Your task to perform on an android device: snooze an email in the gmail app Image 0: 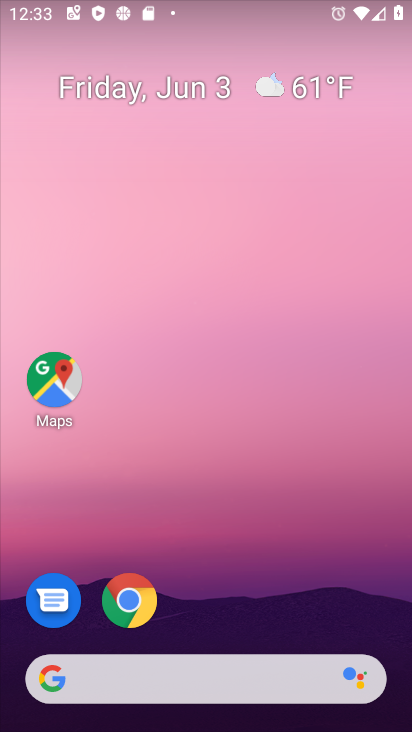
Step 0: drag from (281, 579) to (286, 207)
Your task to perform on an android device: snooze an email in the gmail app Image 1: 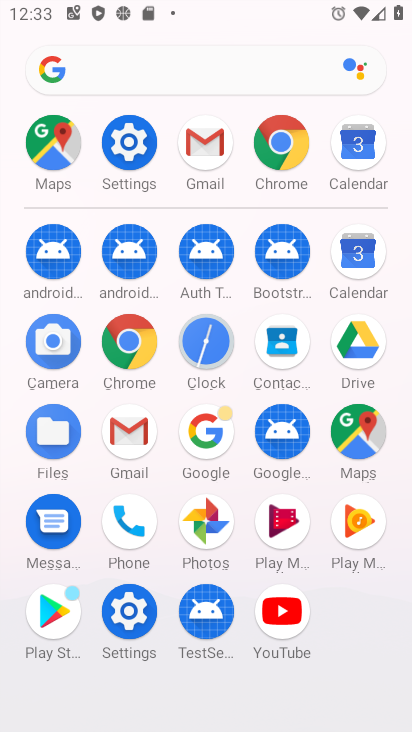
Step 1: click (213, 155)
Your task to perform on an android device: snooze an email in the gmail app Image 2: 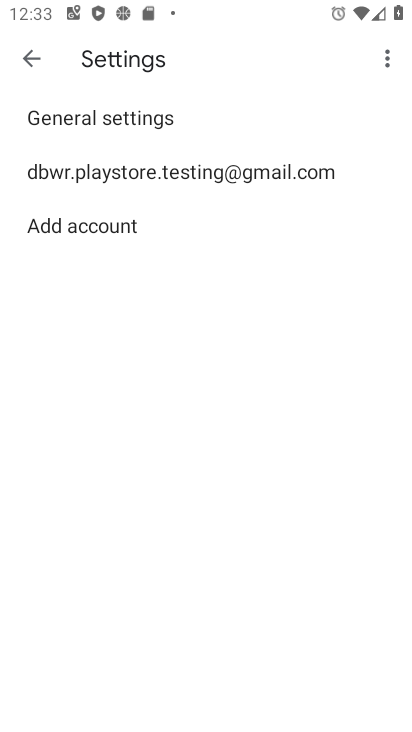
Step 2: click (32, 57)
Your task to perform on an android device: snooze an email in the gmail app Image 3: 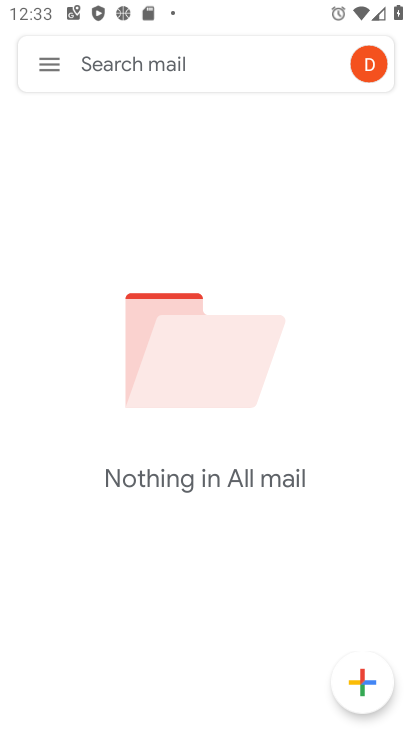
Step 3: click (32, 57)
Your task to perform on an android device: snooze an email in the gmail app Image 4: 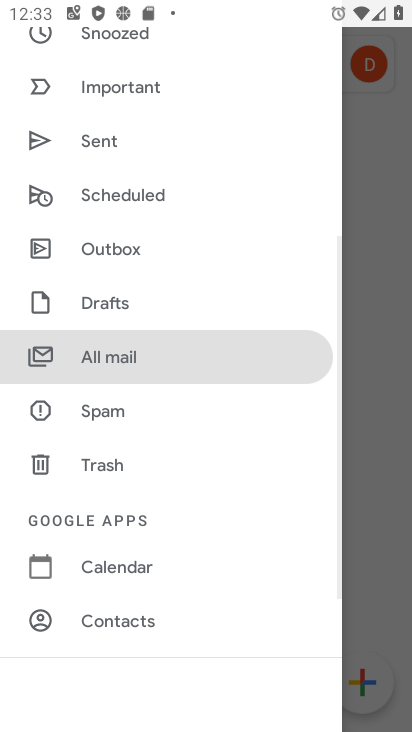
Step 4: drag from (141, 179) to (161, 516)
Your task to perform on an android device: snooze an email in the gmail app Image 5: 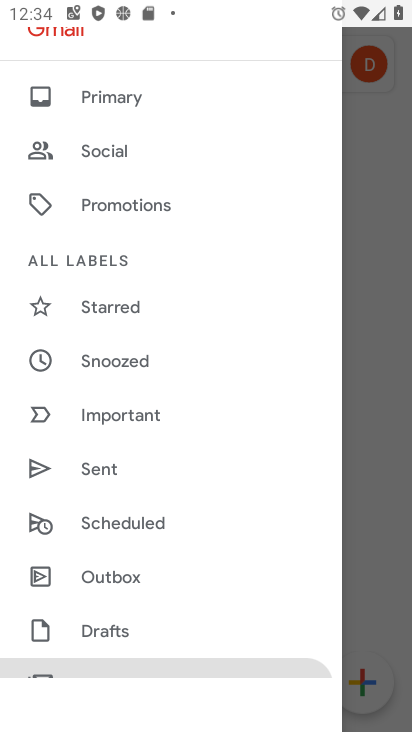
Step 5: drag from (134, 471) to (203, 102)
Your task to perform on an android device: snooze an email in the gmail app Image 6: 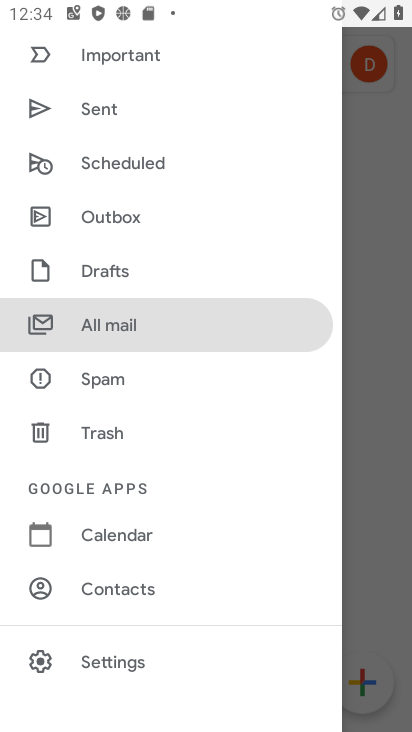
Step 6: click (126, 336)
Your task to perform on an android device: snooze an email in the gmail app Image 7: 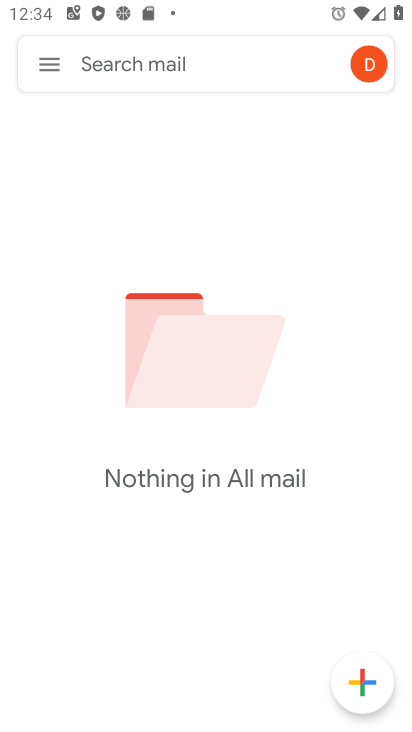
Step 7: task complete